Your task to perform on an android device: Go to network settings Image 0: 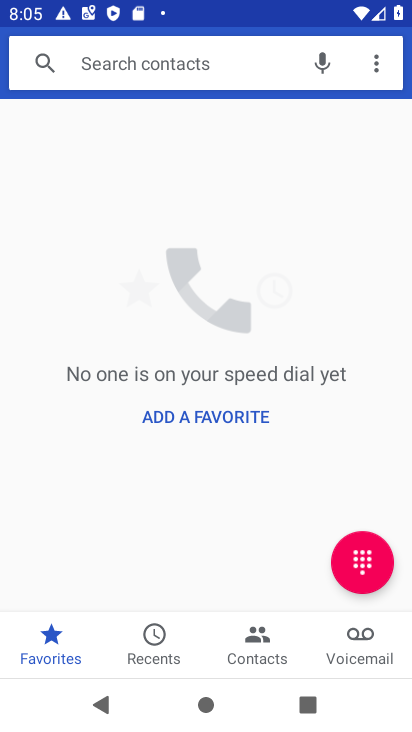
Step 0: press home button
Your task to perform on an android device: Go to network settings Image 1: 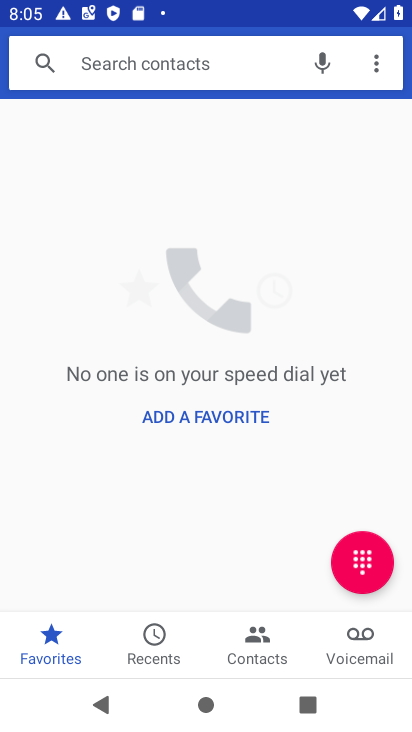
Step 1: press home button
Your task to perform on an android device: Go to network settings Image 2: 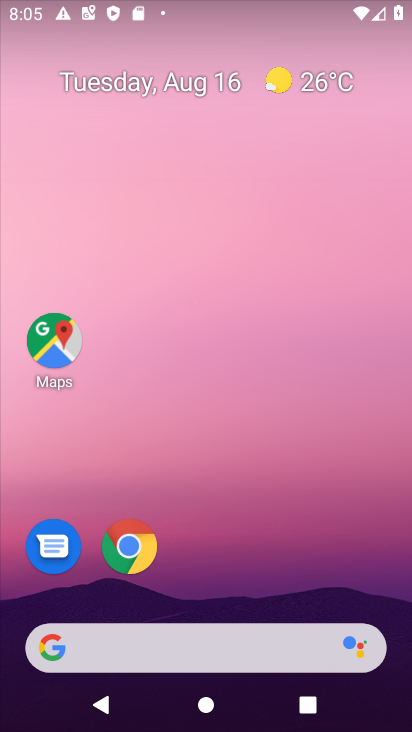
Step 2: drag from (204, 554) to (174, 14)
Your task to perform on an android device: Go to network settings Image 3: 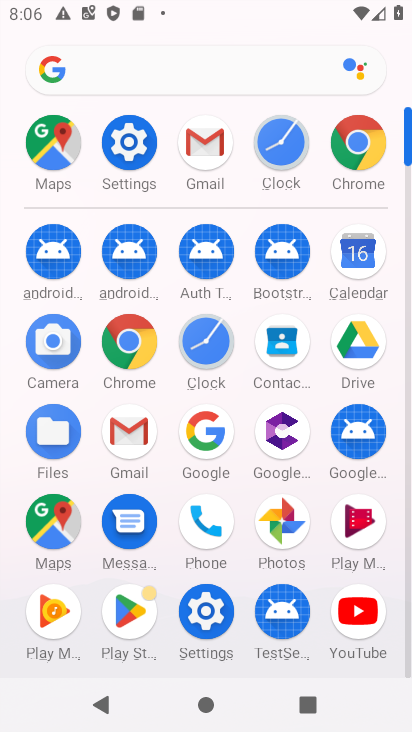
Step 3: click (126, 138)
Your task to perform on an android device: Go to network settings Image 4: 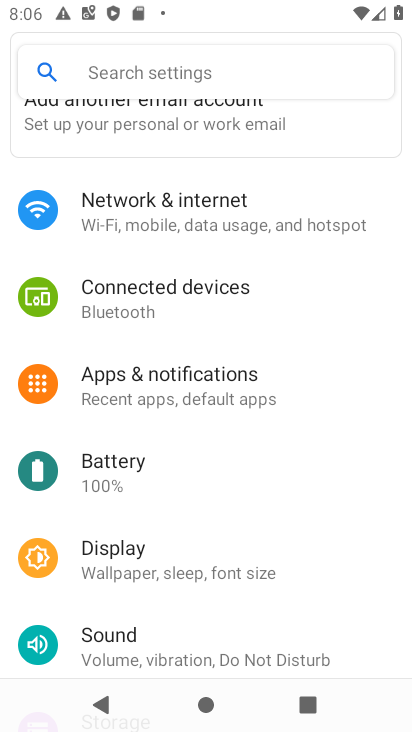
Step 4: click (223, 218)
Your task to perform on an android device: Go to network settings Image 5: 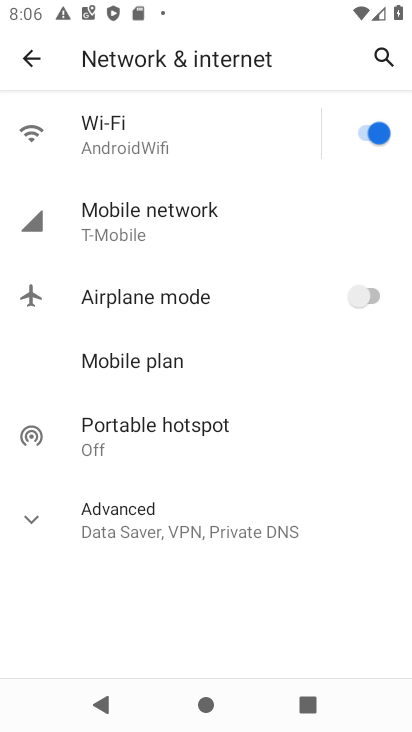
Step 5: task complete